Your task to perform on an android device: Open notification settings Image 0: 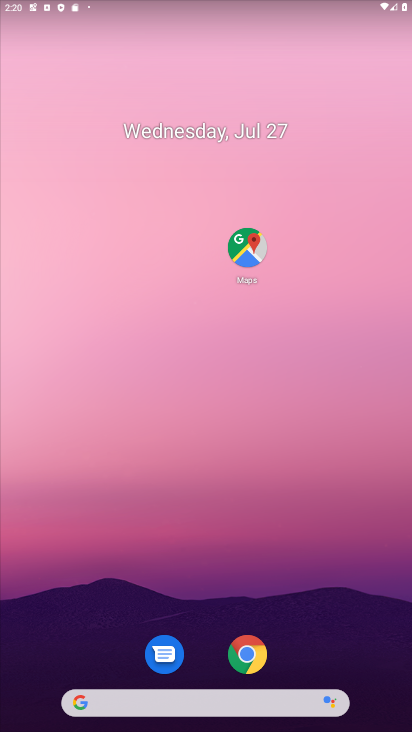
Step 0: drag from (11, 685) to (250, 221)
Your task to perform on an android device: Open notification settings Image 1: 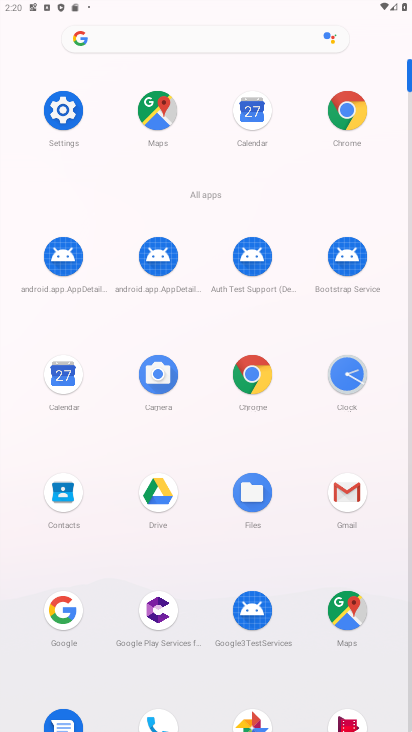
Step 1: click (53, 103)
Your task to perform on an android device: Open notification settings Image 2: 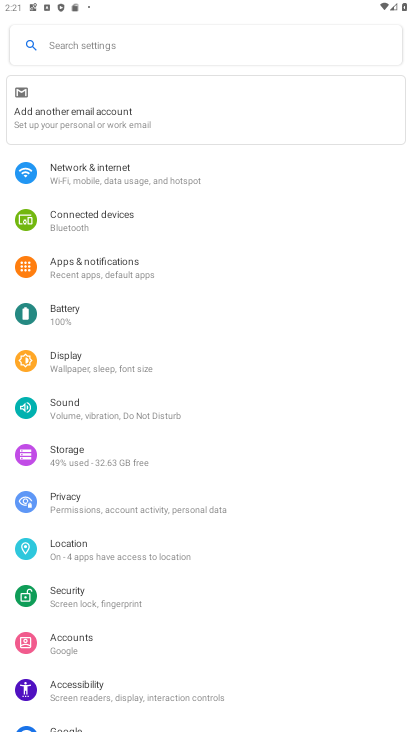
Step 2: click (137, 261)
Your task to perform on an android device: Open notification settings Image 3: 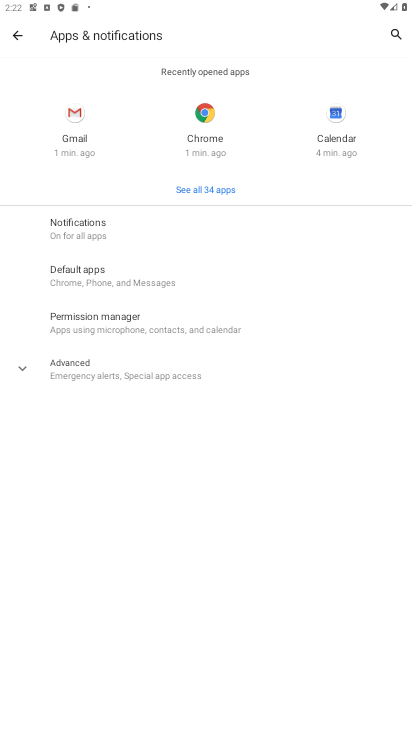
Step 3: task complete